Your task to perform on an android device: Go to CNN.com Image 0: 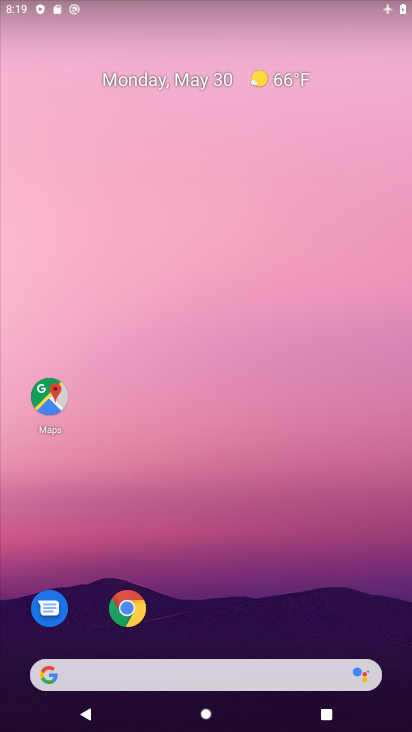
Step 0: click (130, 614)
Your task to perform on an android device: Go to CNN.com Image 1: 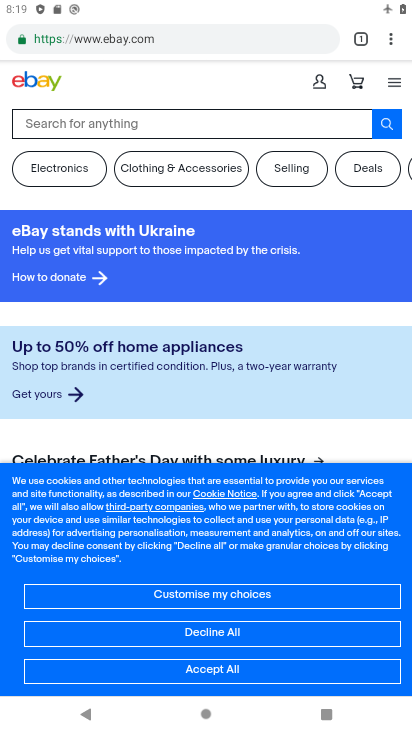
Step 1: click (393, 43)
Your task to perform on an android device: Go to CNN.com Image 2: 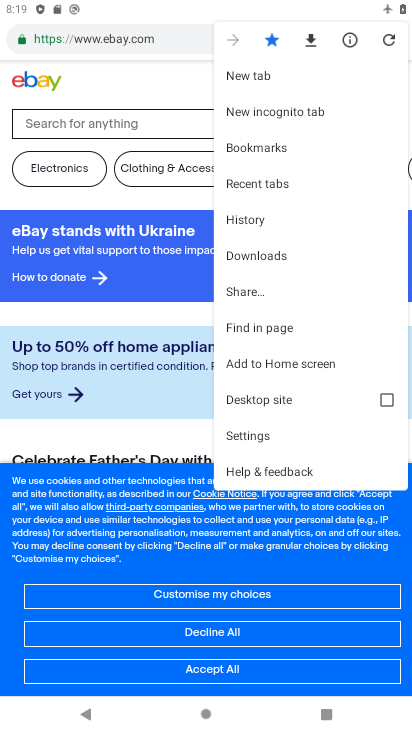
Step 2: click (261, 75)
Your task to perform on an android device: Go to CNN.com Image 3: 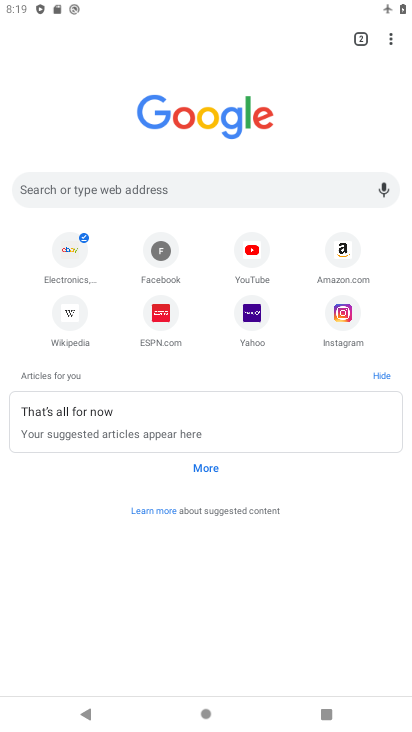
Step 3: click (206, 190)
Your task to perform on an android device: Go to CNN.com Image 4: 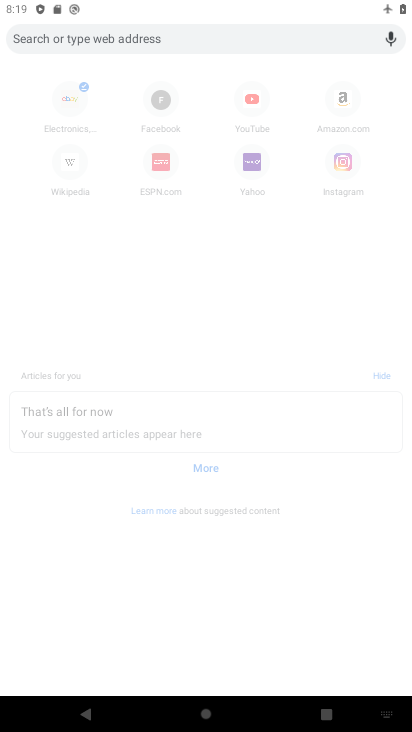
Step 4: type "CNN.com"
Your task to perform on an android device: Go to CNN.com Image 5: 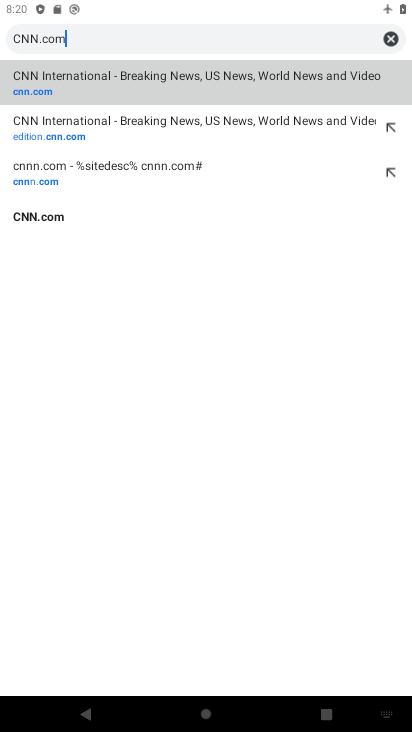
Step 5: click (61, 75)
Your task to perform on an android device: Go to CNN.com Image 6: 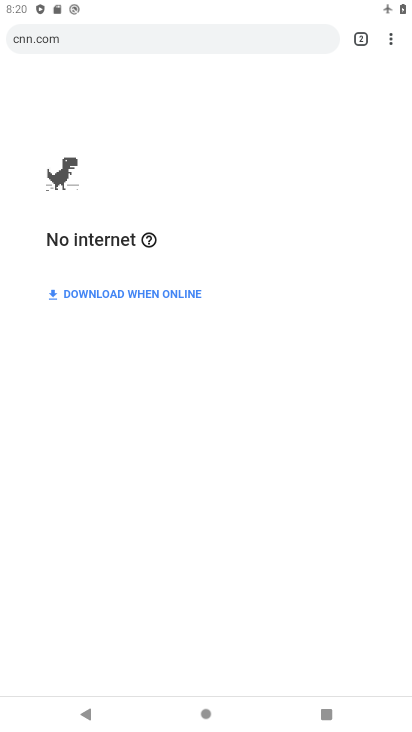
Step 6: task complete